Your task to perform on an android device: Check the weather Image 0: 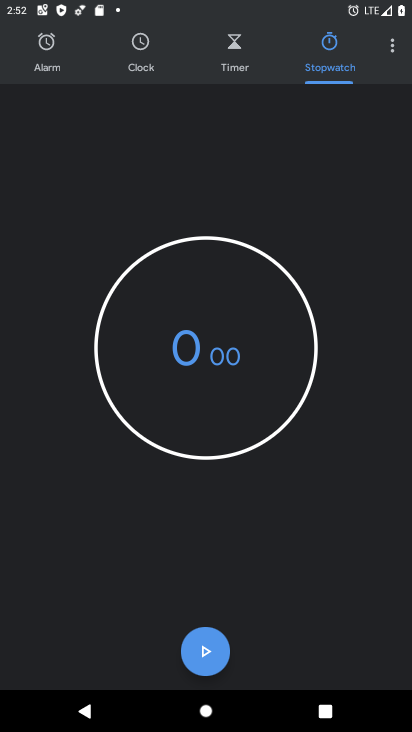
Step 0: press home button
Your task to perform on an android device: Check the weather Image 1: 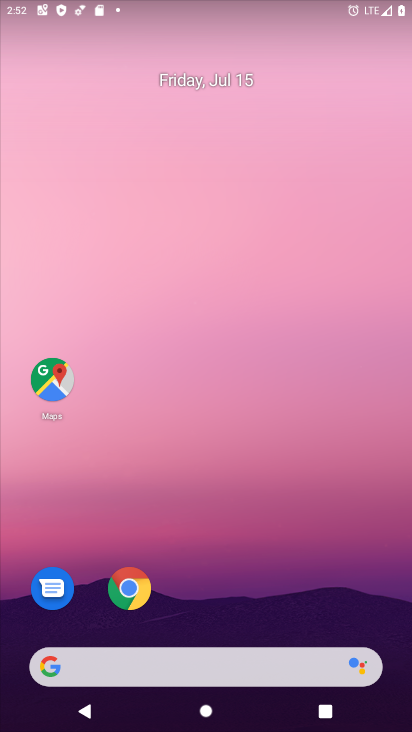
Step 1: drag from (183, 659) to (192, 88)
Your task to perform on an android device: Check the weather Image 2: 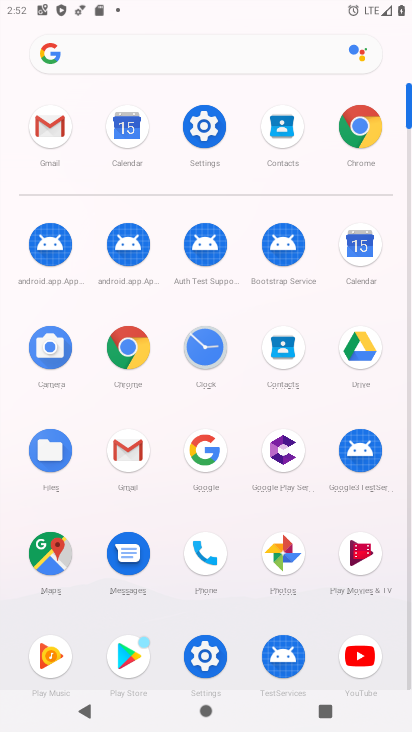
Step 2: click (199, 446)
Your task to perform on an android device: Check the weather Image 3: 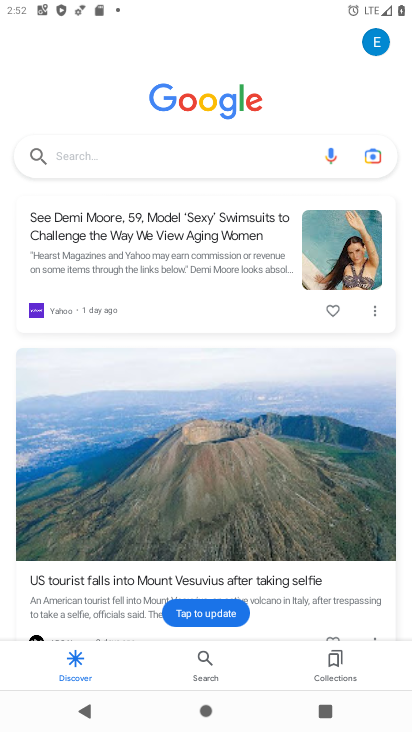
Step 3: click (178, 147)
Your task to perform on an android device: Check the weather Image 4: 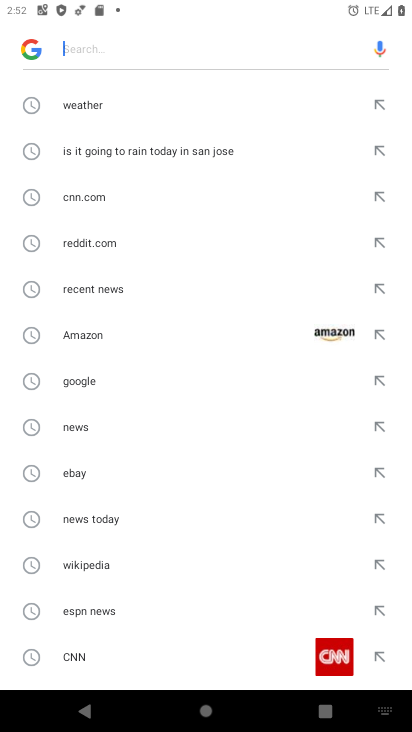
Step 4: click (96, 102)
Your task to perform on an android device: Check the weather Image 5: 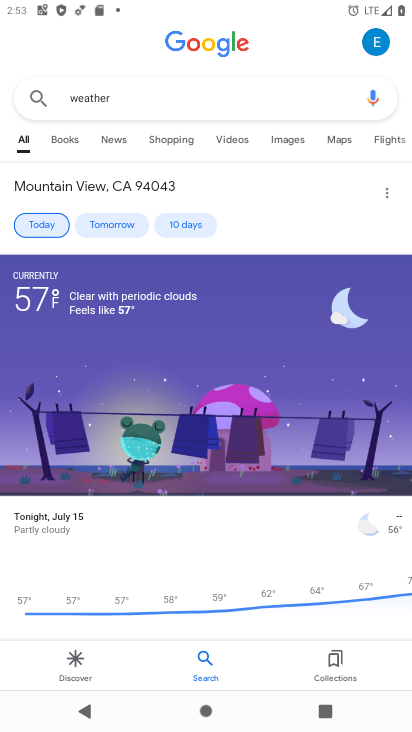
Step 5: task complete